Your task to perform on an android device: Open the calendar app, open the side menu, and click the "Day" option Image 0: 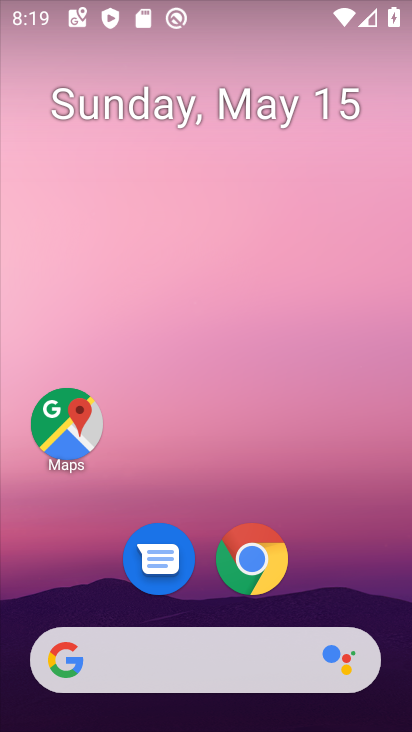
Step 0: drag from (347, 573) to (345, 120)
Your task to perform on an android device: Open the calendar app, open the side menu, and click the "Day" option Image 1: 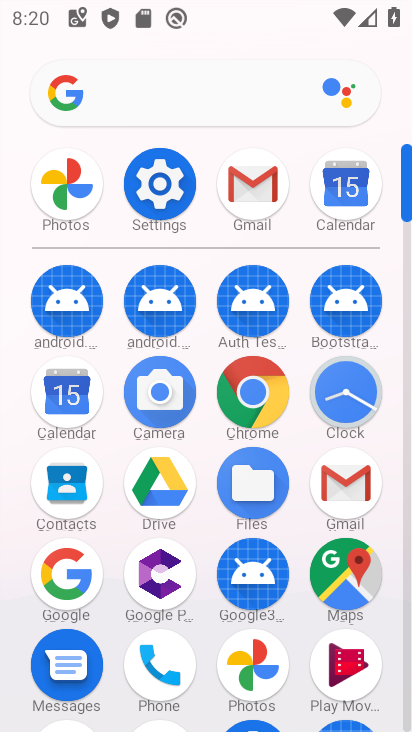
Step 1: click (82, 407)
Your task to perform on an android device: Open the calendar app, open the side menu, and click the "Day" option Image 2: 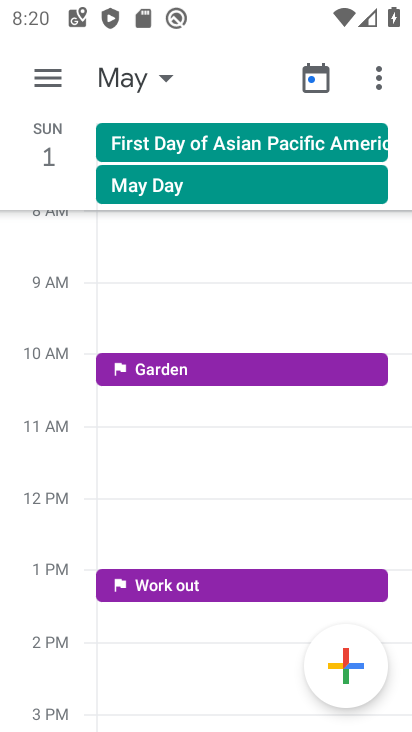
Step 2: click (61, 80)
Your task to perform on an android device: Open the calendar app, open the side menu, and click the "Day" option Image 3: 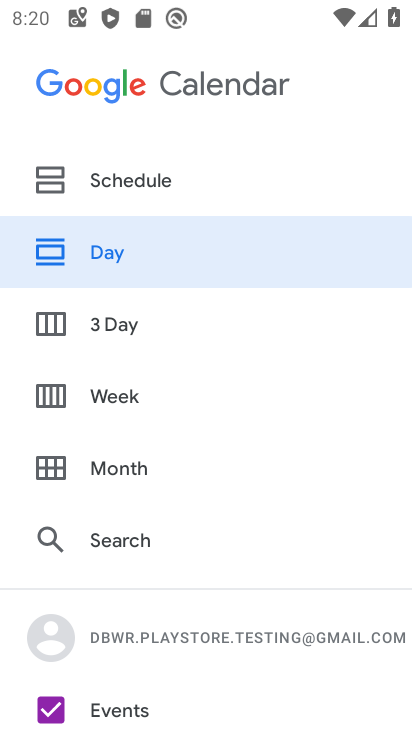
Step 3: click (45, 252)
Your task to perform on an android device: Open the calendar app, open the side menu, and click the "Day" option Image 4: 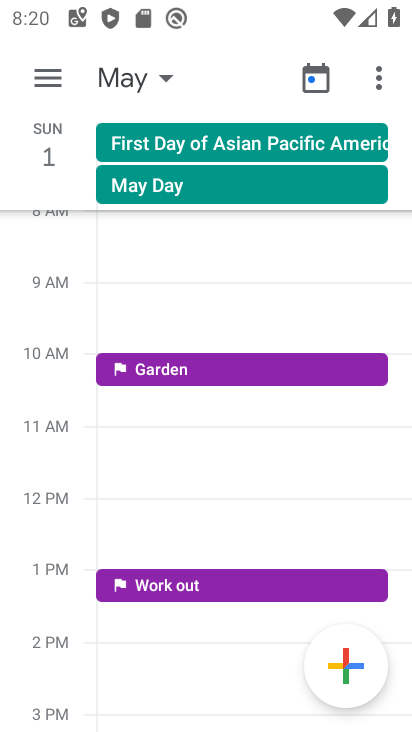
Step 4: task complete